Your task to perform on an android device: Go to accessibility settings Image 0: 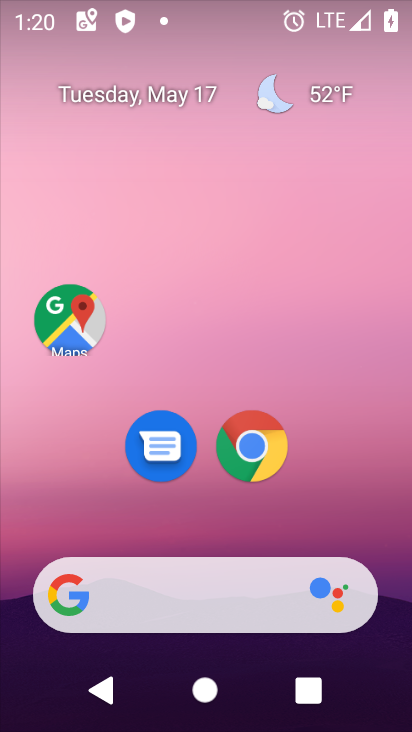
Step 0: drag from (206, 527) to (264, 184)
Your task to perform on an android device: Go to accessibility settings Image 1: 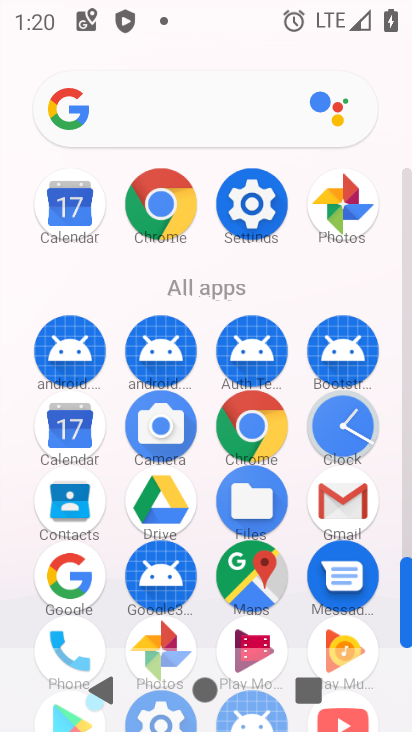
Step 1: click (249, 193)
Your task to perform on an android device: Go to accessibility settings Image 2: 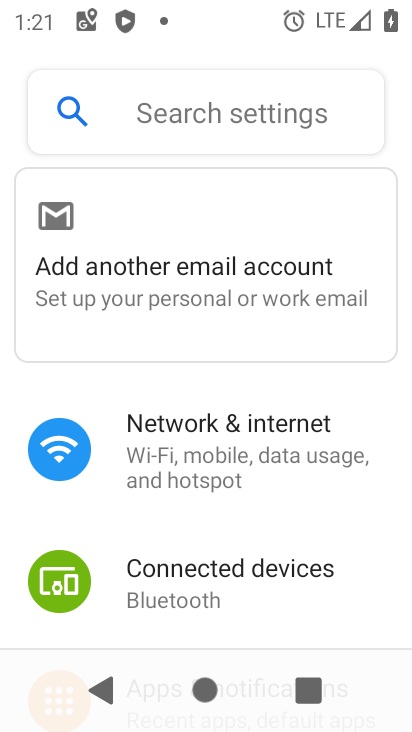
Step 2: drag from (184, 516) to (223, 267)
Your task to perform on an android device: Go to accessibility settings Image 3: 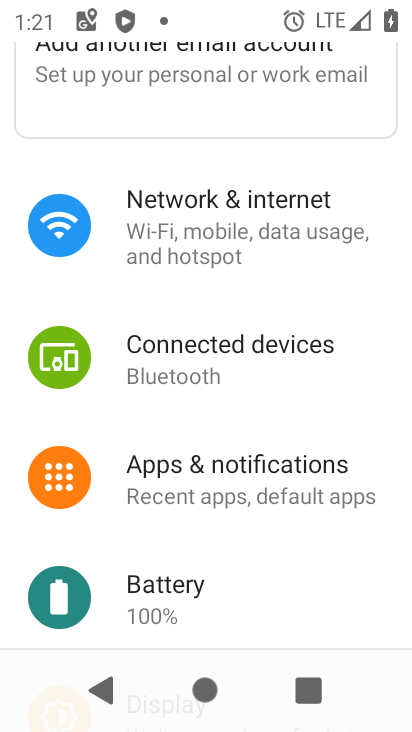
Step 3: drag from (215, 499) to (236, 328)
Your task to perform on an android device: Go to accessibility settings Image 4: 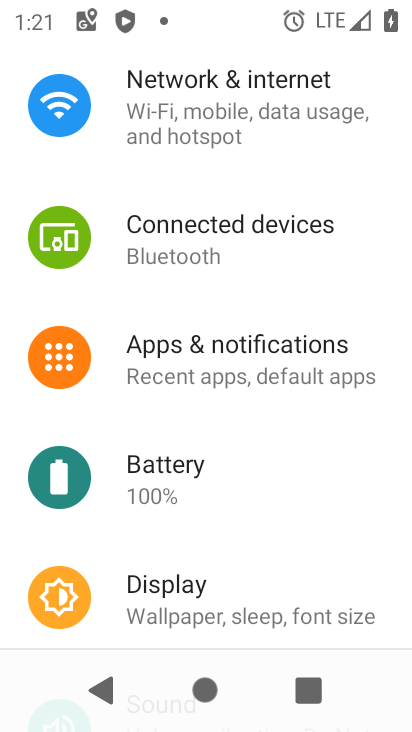
Step 4: drag from (235, 579) to (265, 362)
Your task to perform on an android device: Go to accessibility settings Image 5: 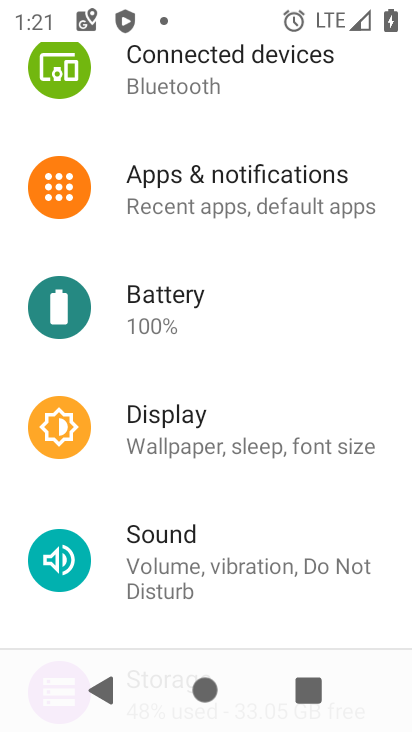
Step 5: drag from (291, 505) to (329, 301)
Your task to perform on an android device: Go to accessibility settings Image 6: 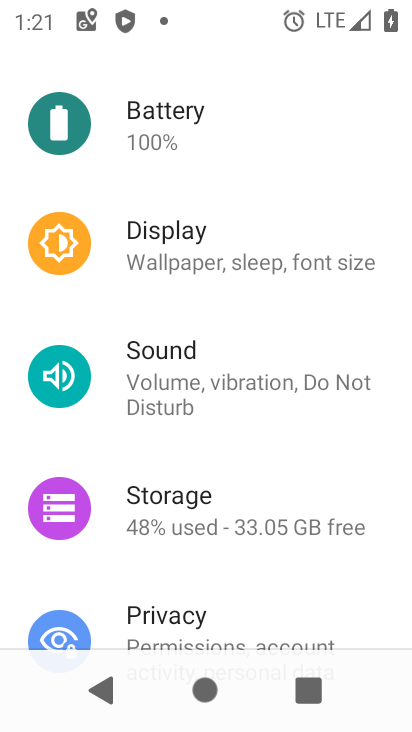
Step 6: drag from (260, 544) to (294, 245)
Your task to perform on an android device: Go to accessibility settings Image 7: 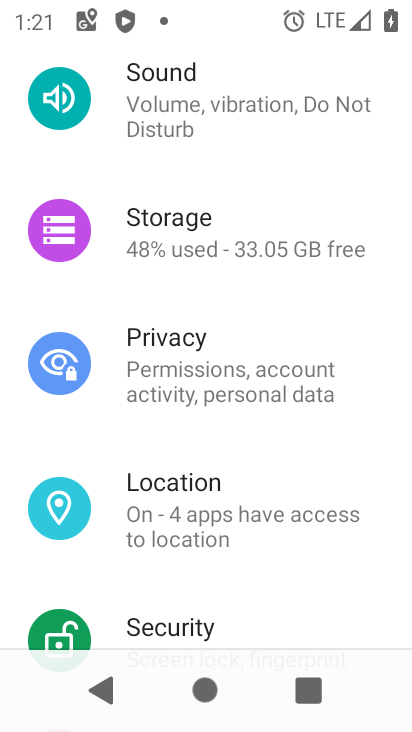
Step 7: drag from (250, 581) to (249, 399)
Your task to perform on an android device: Go to accessibility settings Image 8: 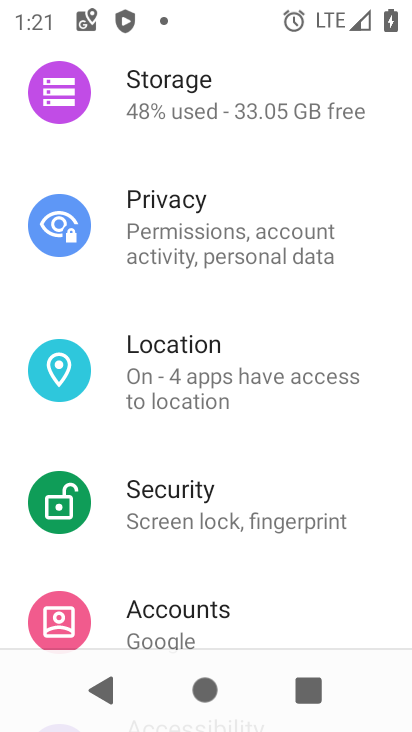
Step 8: drag from (222, 519) to (259, 222)
Your task to perform on an android device: Go to accessibility settings Image 9: 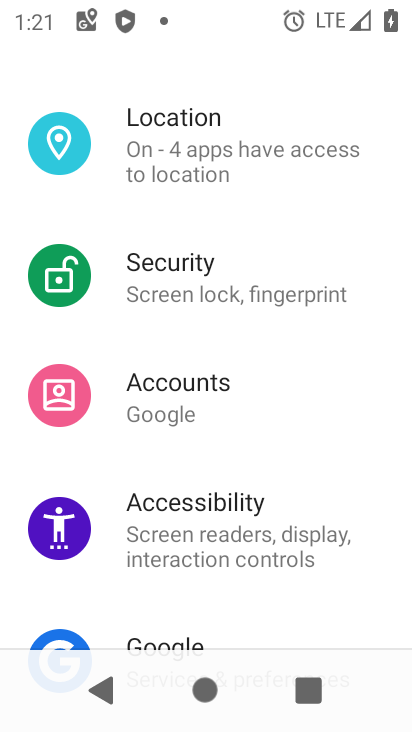
Step 9: click (213, 539)
Your task to perform on an android device: Go to accessibility settings Image 10: 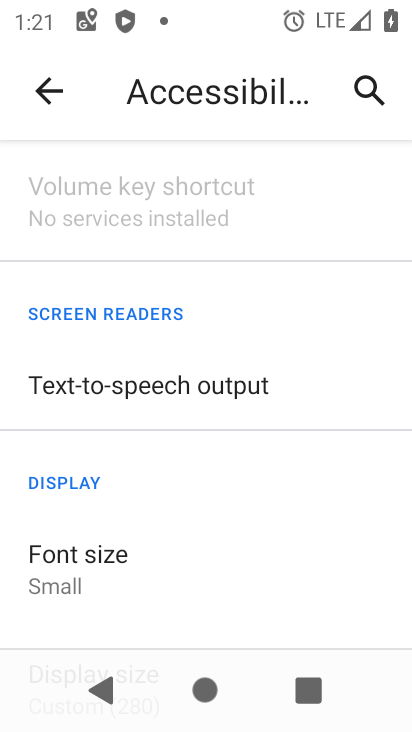
Step 10: task complete